Your task to perform on an android device: set the stopwatch Image 0: 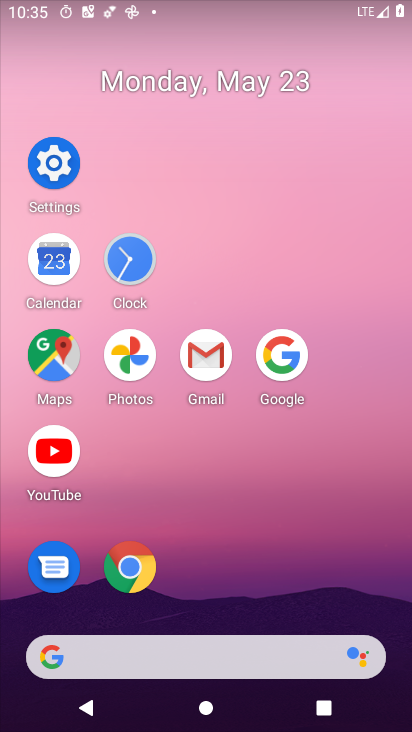
Step 0: click (139, 266)
Your task to perform on an android device: set the stopwatch Image 1: 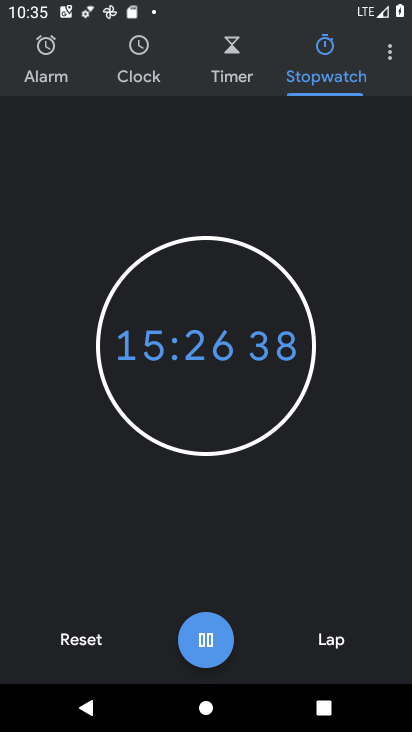
Step 1: click (106, 644)
Your task to perform on an android device: set the stopwatch Image 2: 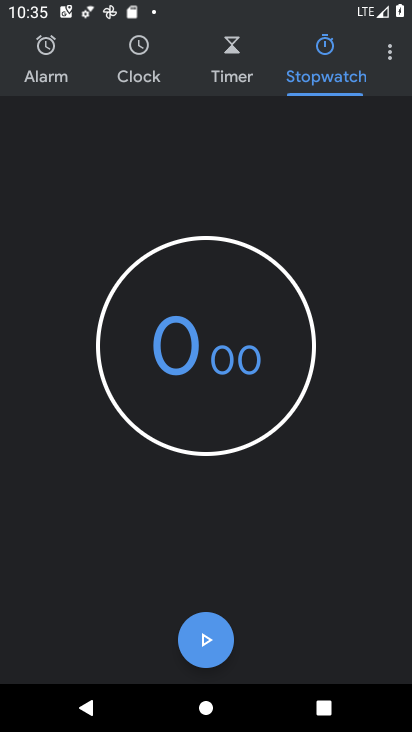
Step 2: click (206, 632)
Your task to perform on an android device: set the stopwatch Image 3: 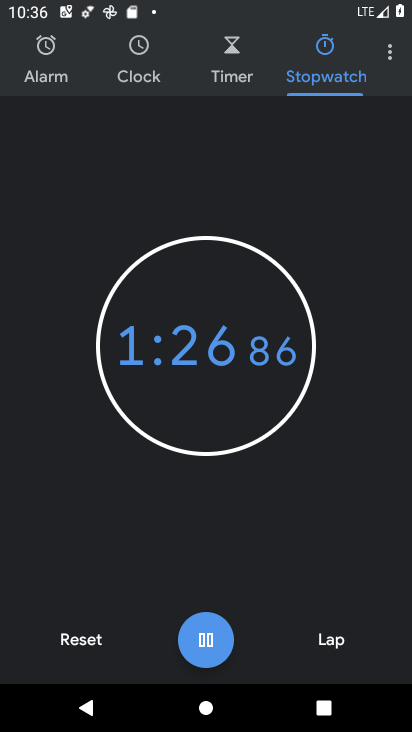
Step 3: task complete